Your task to perform on an android device: Show me the alarms in the clock app Image 0: 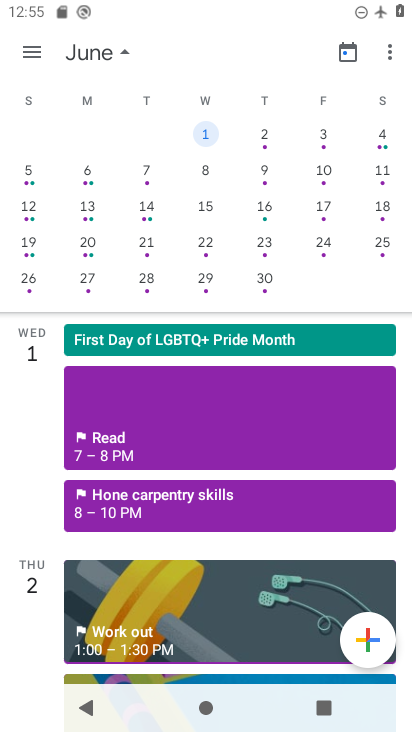
Step 0: press home button
Your task to perform on an android device: Show me the alarms in the clock app Image 1: 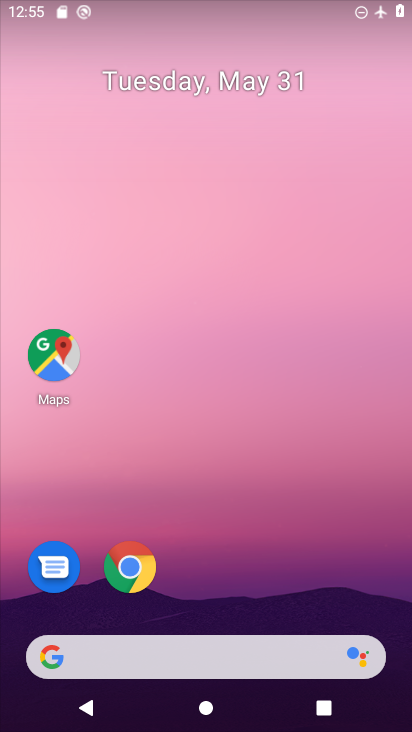
Step 1: drag from (212, 619) to (249, 188)
Your task to perform on an android device: Show me the alarms in the clock app Image 2: 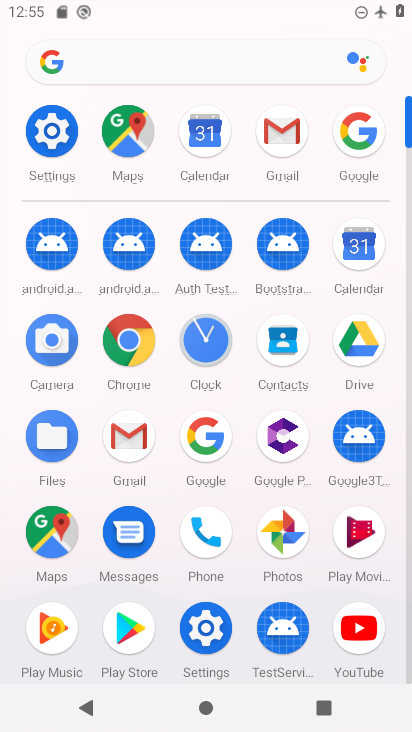
Step 2: click (197, 340)
Your task to perform on an android device: Show me the alarms in the clock app Image 3: 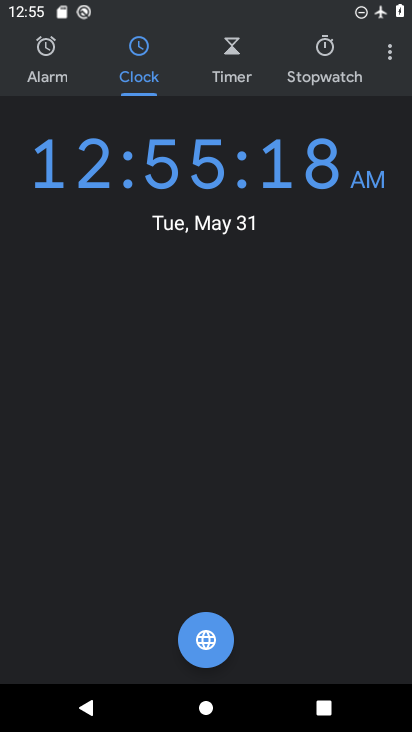
Step 3: click (392, 59)
Your task to perform on an android device: Show me the alarms in the clock app Image 4: 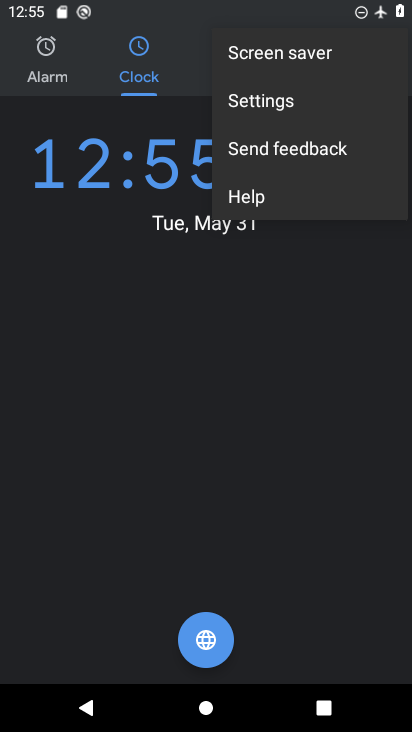
Step 4: click (255, 112)
Your task to perform on an android device: Show me the alarms in the clock app Image 5: 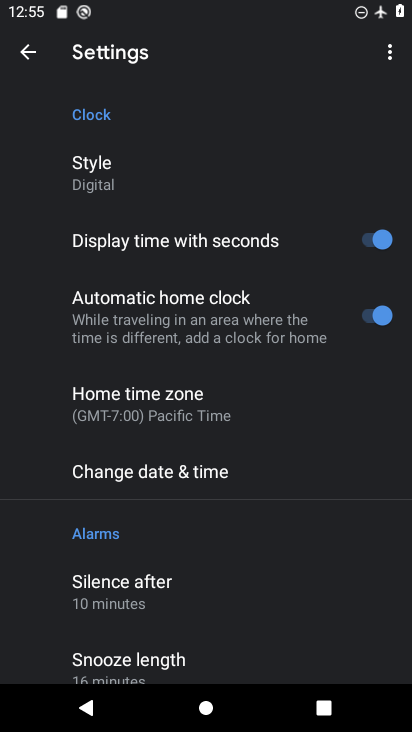
Step 5: click (27, 67)
Your task to perform on an android device: Show me the alarms in the clock app Image 6: 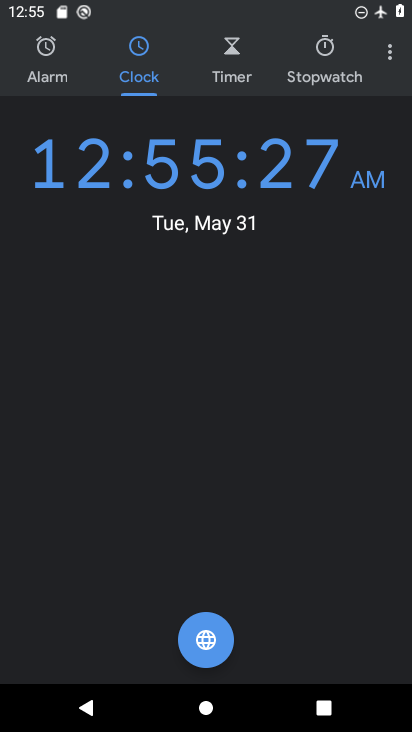
Step 6: click (32, 69)
Your task to perform on an android device: Show me the alarms in the clock app Image 7: 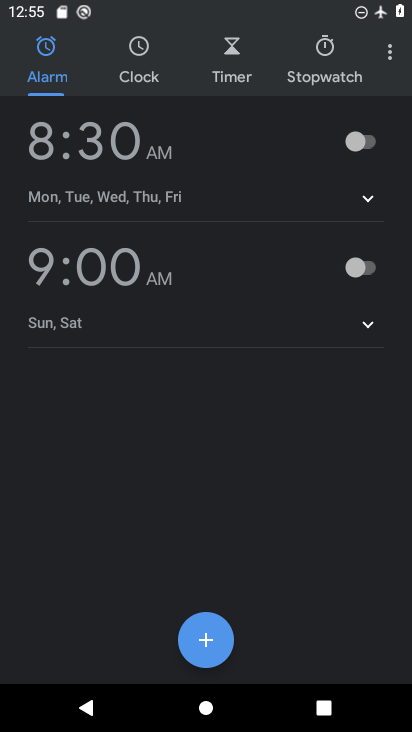
Step 7: task complete